Your task to perform on an android device: set the stopwatch Image 0: 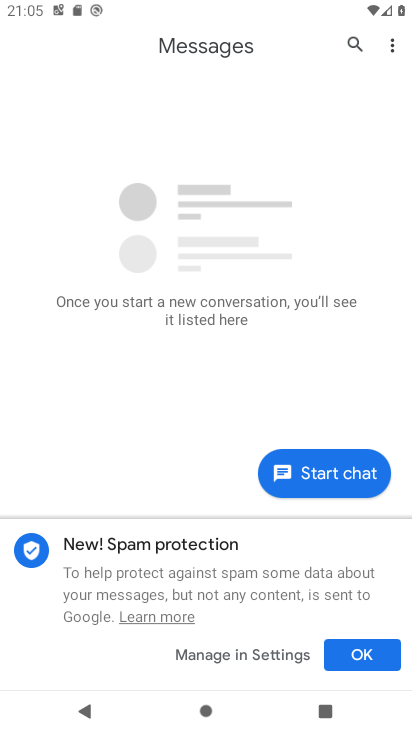
Step 0: press home button
Your task to perform on an android device: set the stopwatch Image 1: 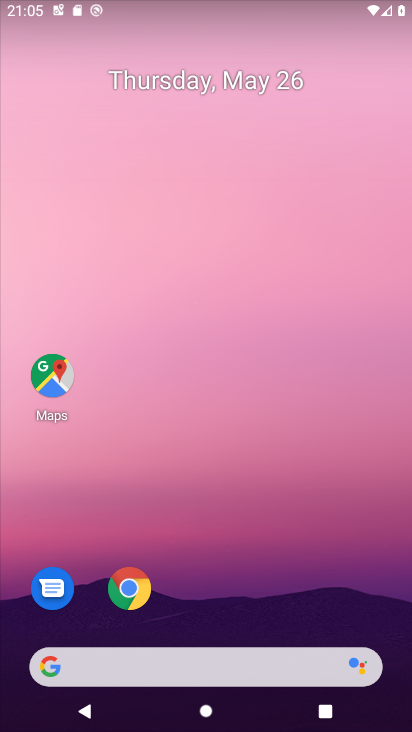
Step 1: drag from (260, 511) to (200, 0)
Your task to perform on an android device: set the stopwatch Image 2: 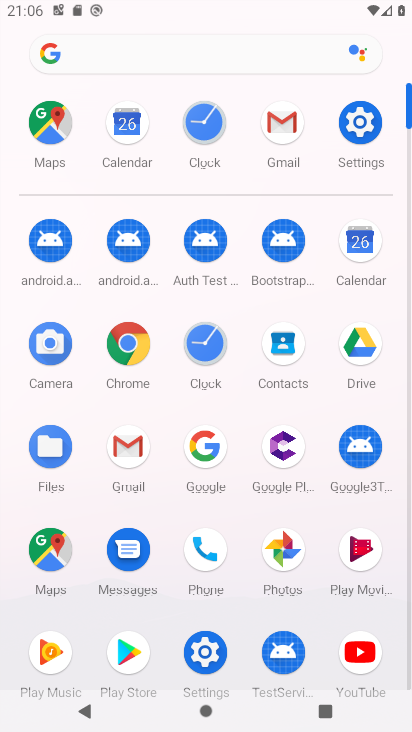
Step 2: click (200, 116)
Your task to perform on an android device: set the stopwatch Image 3: 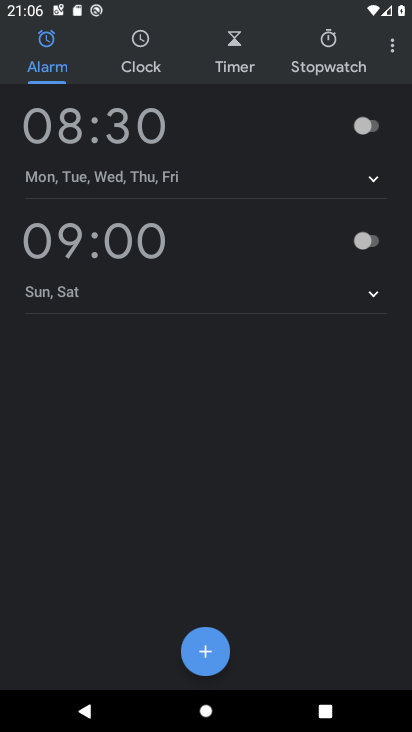
Step 3: click (314, 54)
Your task to perform on an android device: set the stopwatch Image 4: 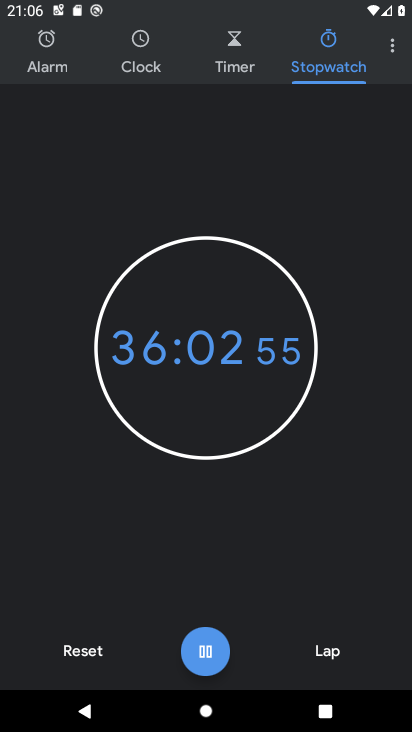
Step 4: task complete